Your task to perform on an android device: Check the weather Image 0: 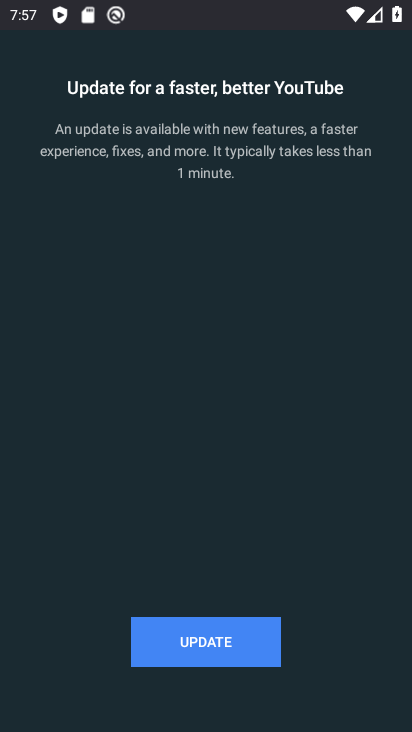
Step 0: press home button
Your task to perform on an android device: Check the weather Image 1: 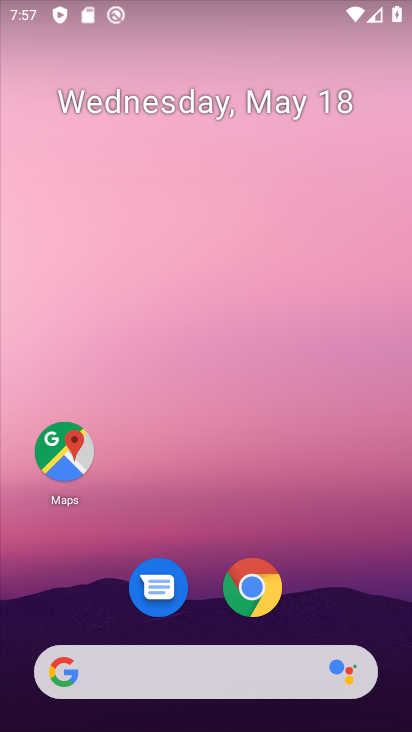
Step 1: drag from (179, 647) to (260, 64)
Your task to perform on an android device: Check the weather Image 2: 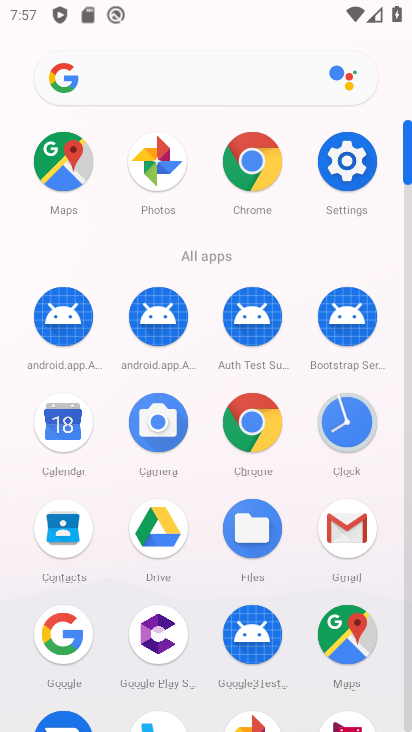
Step 2: click (78, 637)
Your task to perform on an android device: Check the weather Image 3: 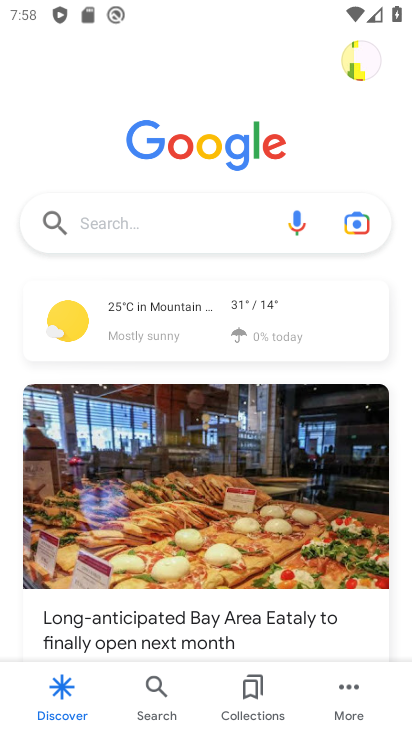
Step 3: click (197, 235)
Your task to perform on an android device: Check the weather Image 4: 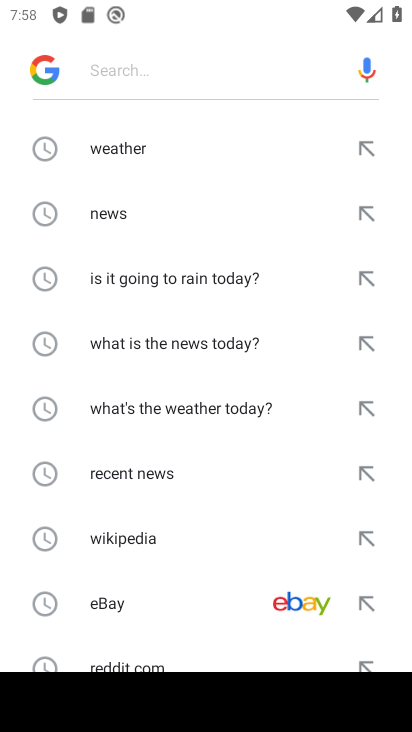
Step 4: click (204, 151)
Your task to perform on an android device: Check the weather Image 5: 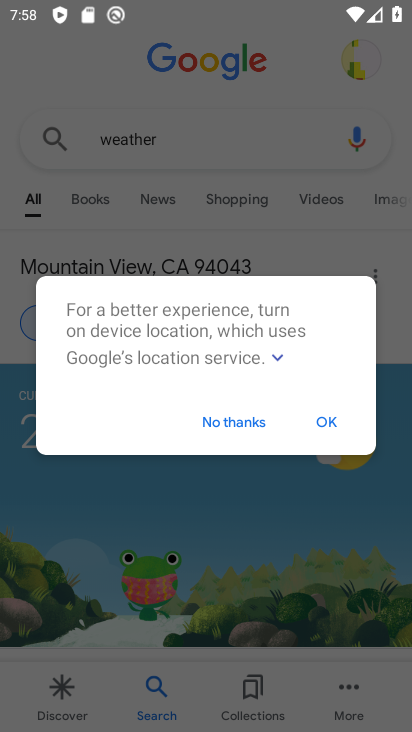
Step 5: click (313, 417)
Your task to perform on an android device: Check the weather Image 6: 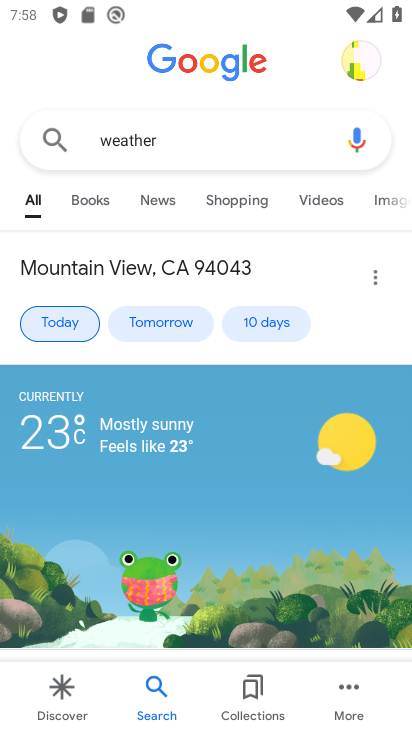
Step 6: task complete